Your task to perform on an android device: set default search engine in the chrome app Image 0: 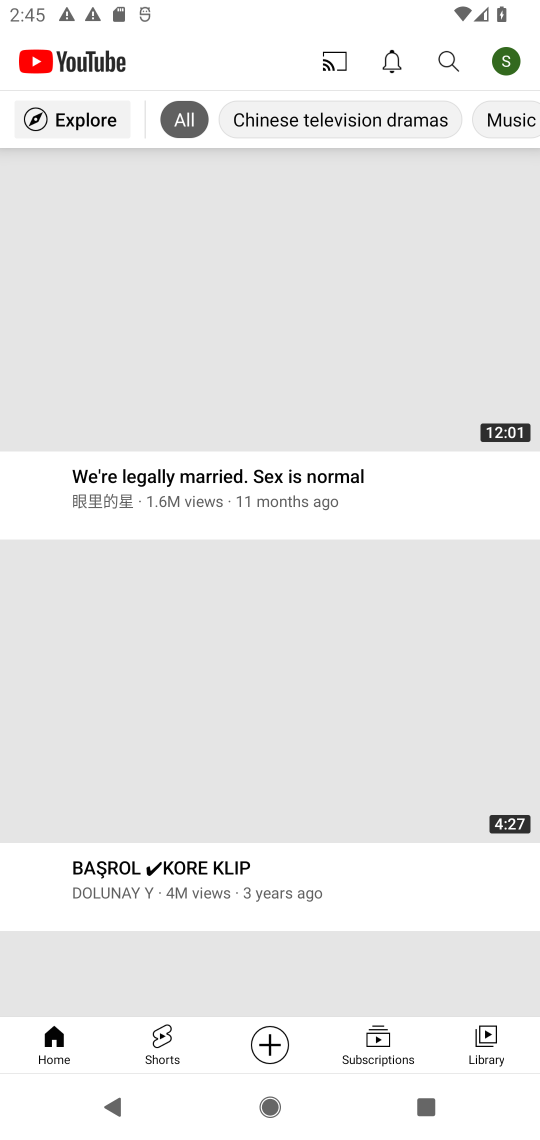
Step 0: press home button
Your task to perform on an android device: set default search engine in the chrome app Image 1: 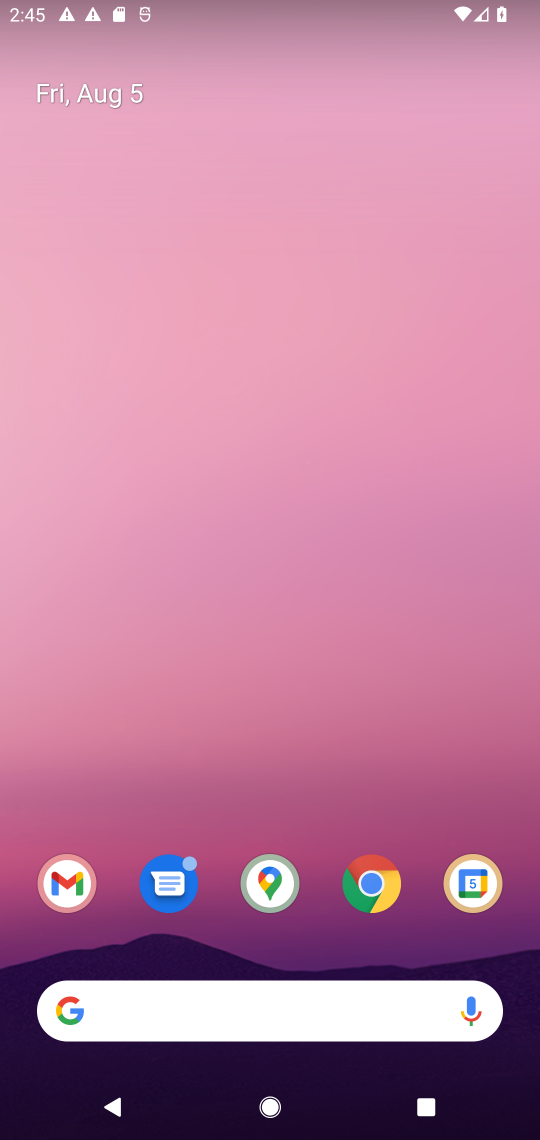
Step 1: click (368, 873)
Your task to perform on an android device: set default search engine in the chrome app Image 2: 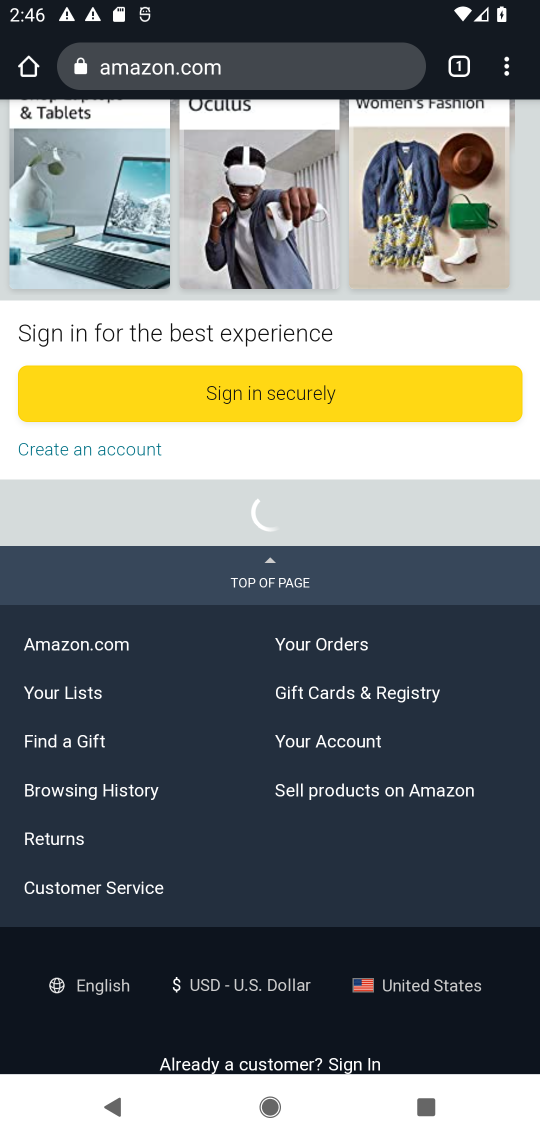
Step 2: click (508, 67)
Your task to perform on an android device: set default search engine in the chrome app Image 3: 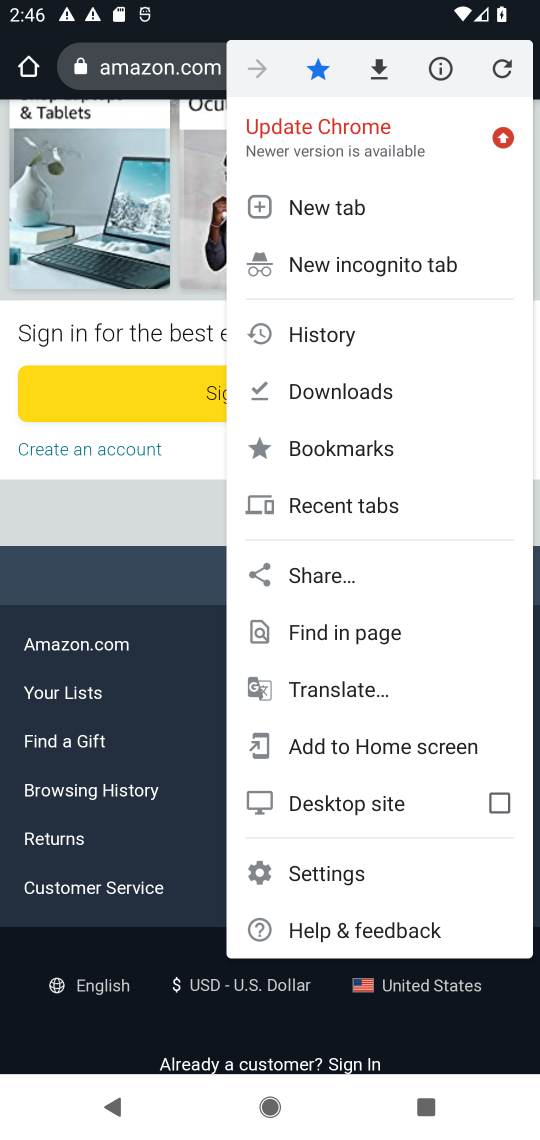
Step 3: click (371, 872)
Your task to perform on an android device: set default search engine in the chrome app Image 4: 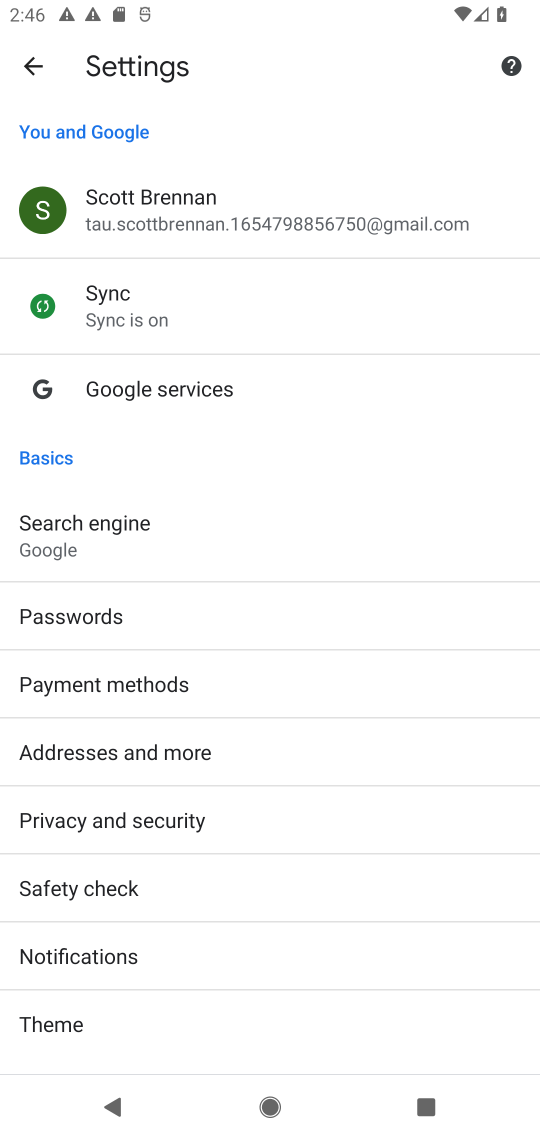
Step 4: click (118, 543)
Your task to perform on an android device: set default search engine in the chrome app Image 5: 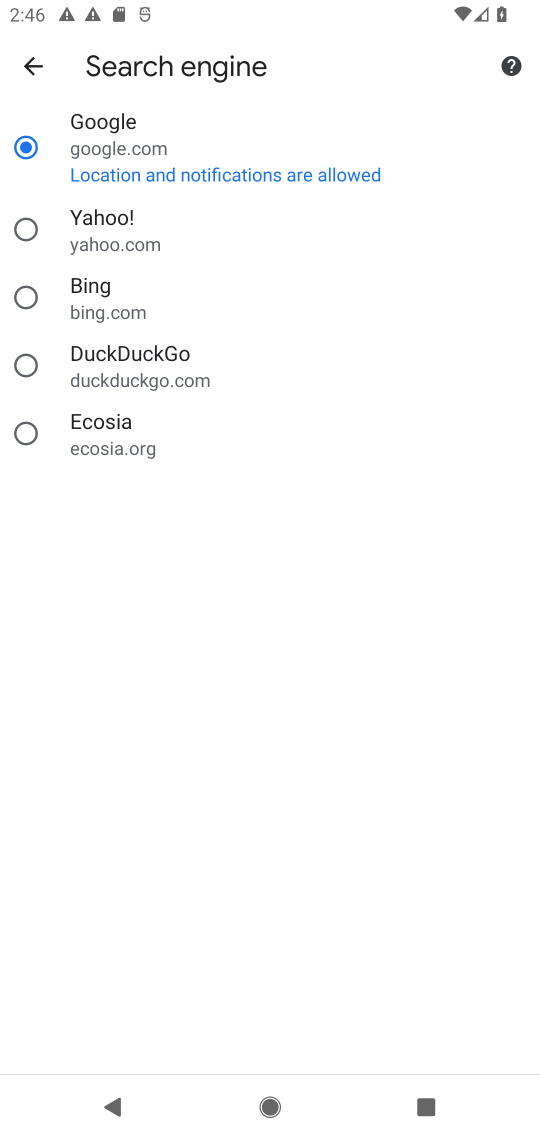
Step 5: click (24, 359)
Your task to perform on an android device: set default search engine in the chrome app Image 6: 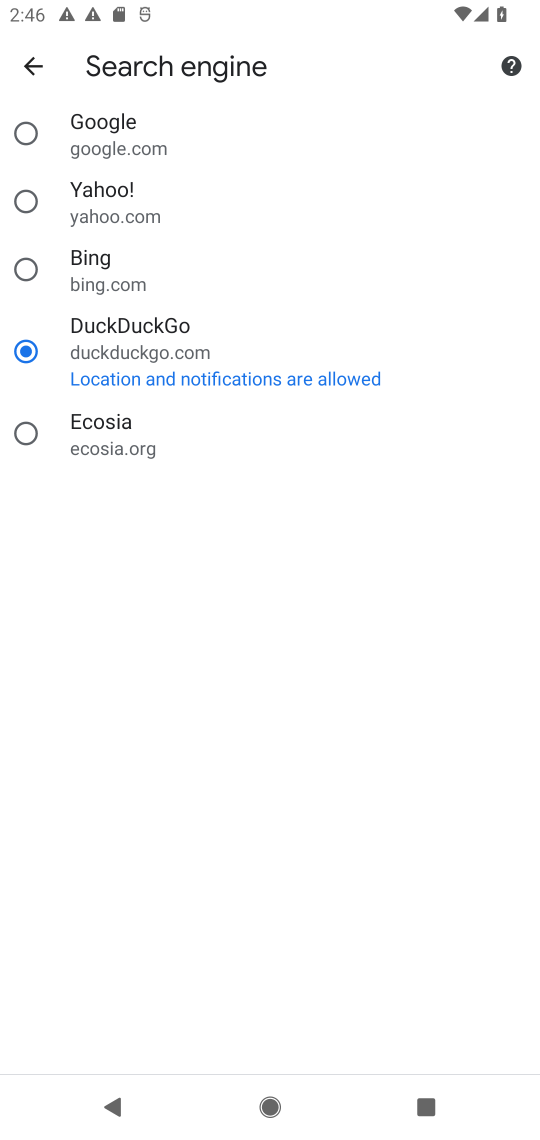
Step 6: task complete